Your task to perform on an android device: add a contact Image 0: 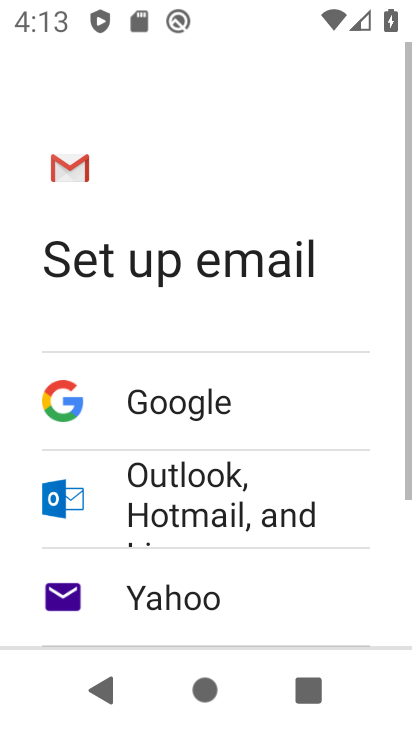
Step 0: press home button
Your task to perform on an android device: add a contact Image 1: 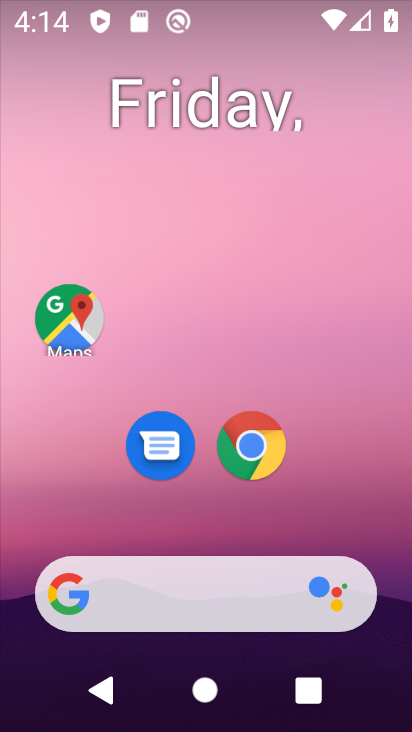
Step 1: drag from (282, 547) to (225, 26)
Your task to perform on an android device: add a contact Image 2: 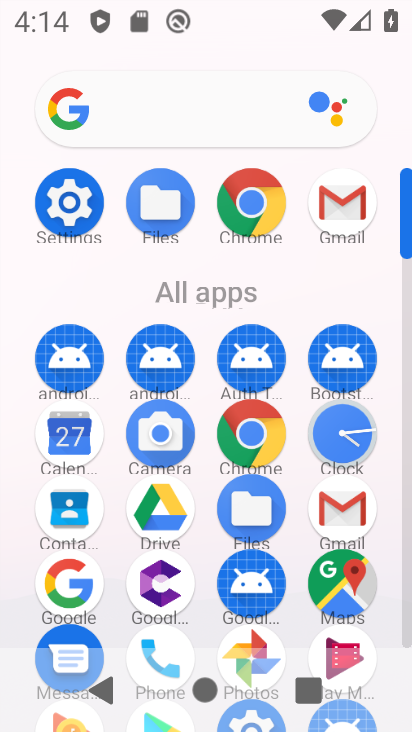
Step 2: click (61, 518)
Your task to perform on an android device: add a contact Image 3: 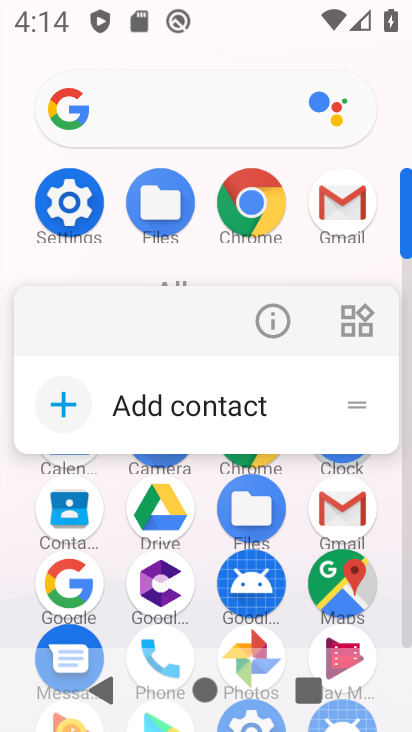
Step 3: click (52, 512)
Your task to perform on an android device: add a contact Image 4: 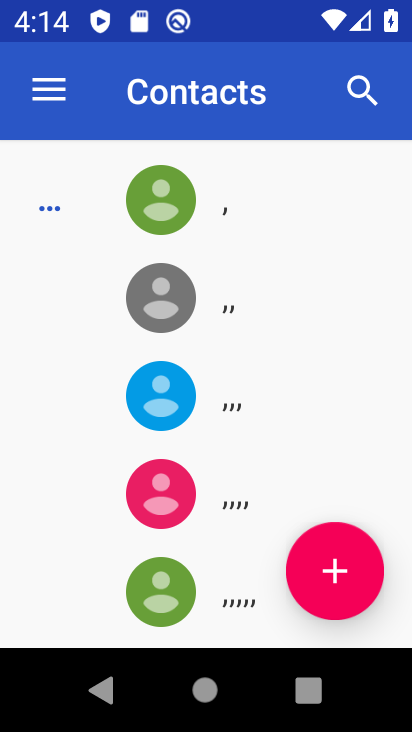
Step 4: click (326, 572)
Your task to perform on an android device: add a contact Image 5: 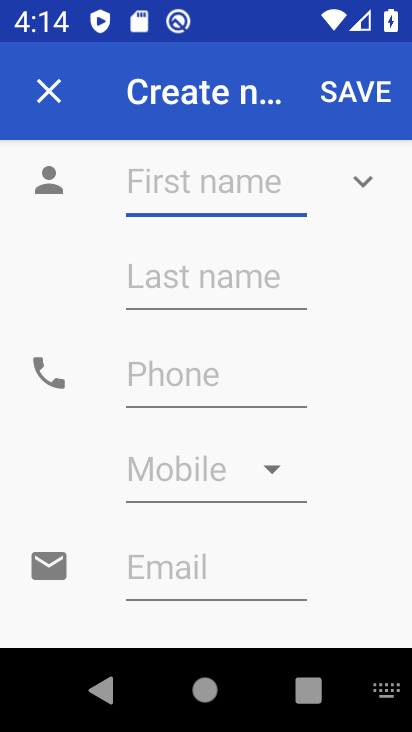
Step 5: type "ghghghg"
Your task to perform on an android device: add a contact Image 6: 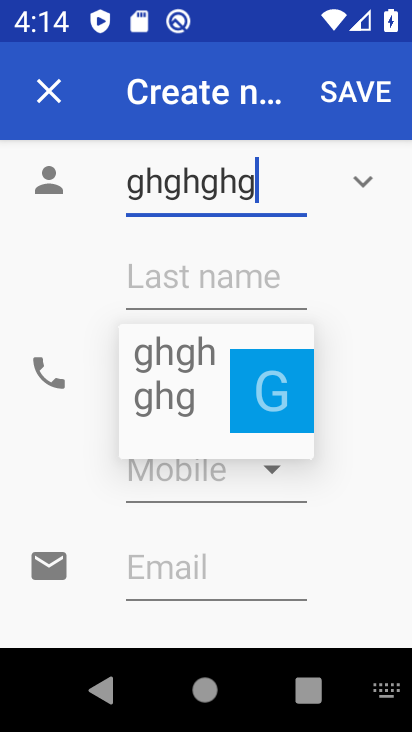
Step 6: click (5, 466)
Your task to perform on an android device: add a contact Image 7: 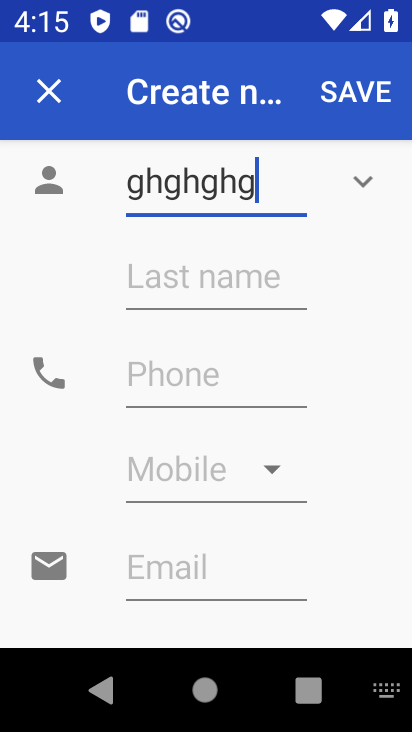
Step 7: click (279, 381)
Your task to perform on an android device: add a contact Image 8: 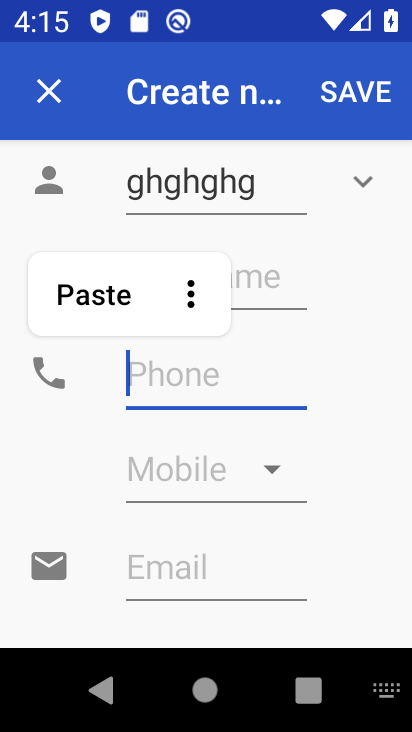
Step 8: type "665656565"
Your task to perform on an android device: add a contact Image 9: 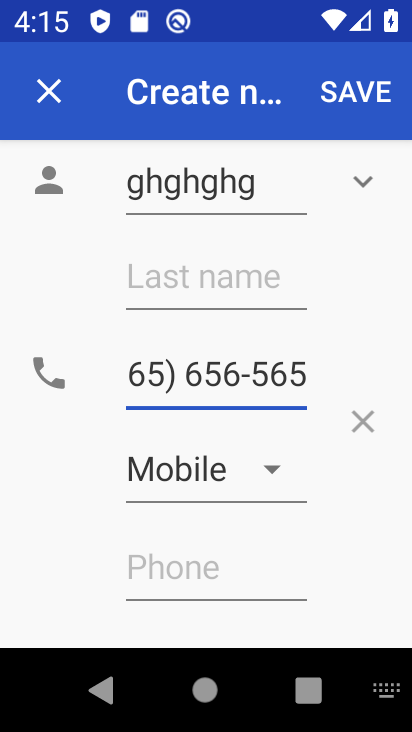
Step 9: click (370, 91)
Your task to perform on an android device: add a contact Image 10: 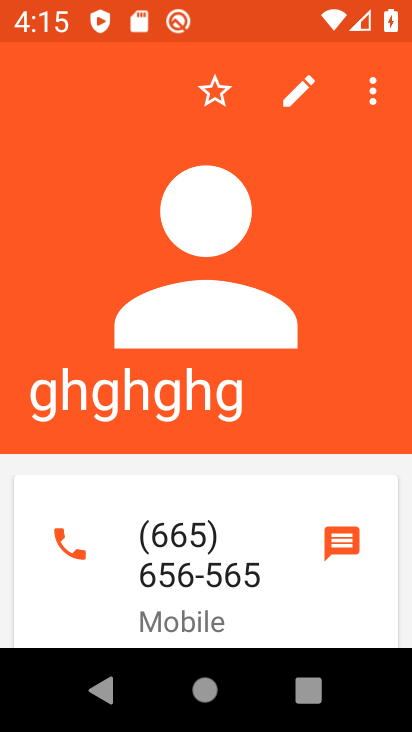
Step 10: task complete